Your task to perform on an android device: check battery use Image 0: 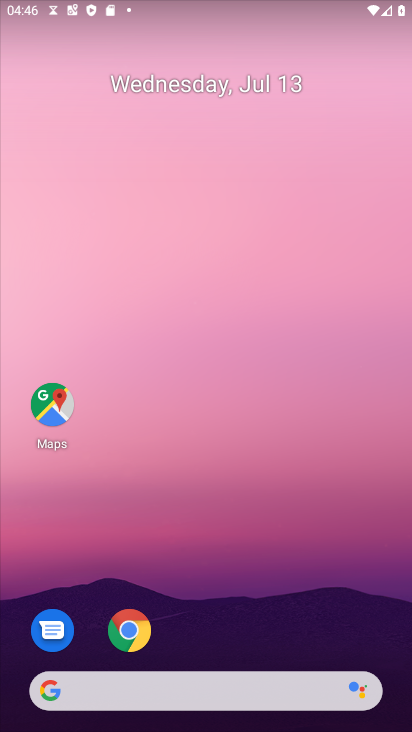
Step 0: drag from (316, 680) to (267, 14)
Your task to perform on an android device: check battery use Image 1: 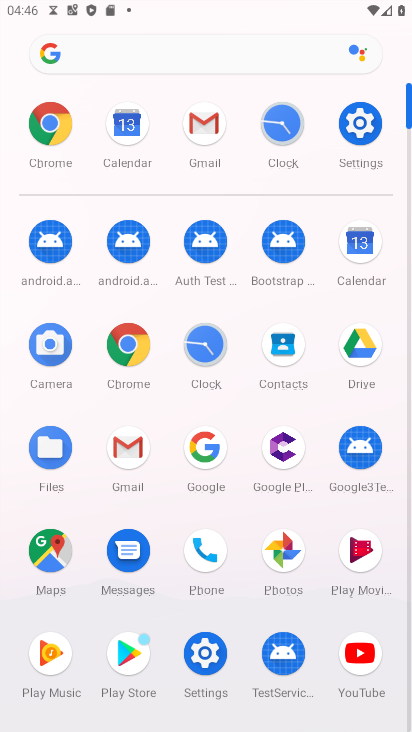
Step 1: click (350, 125)
Your task to perform on an android device: check battery use Image 2: 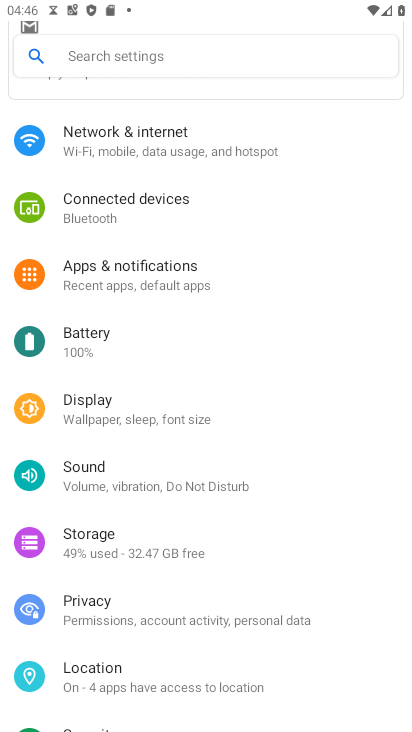
Step 2: click (120, 346)
Your task to perform on an android device: check battery use Image 3: 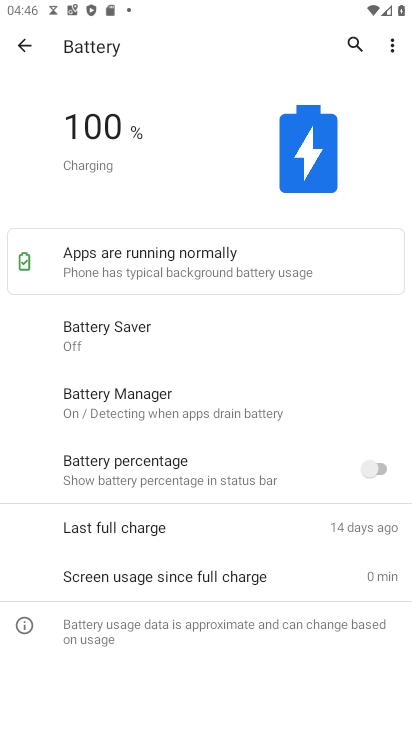
Step 3: task complete